Your task to perform on an android device: clear history in the chrome app Image 0: 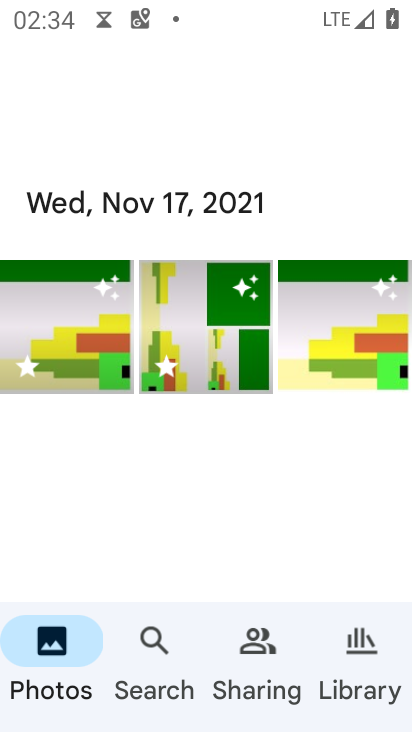
Step 0: drag from (301, 576) to (305, 409)
Your task to perform on an android device: clear history in the chrome app Image 1: 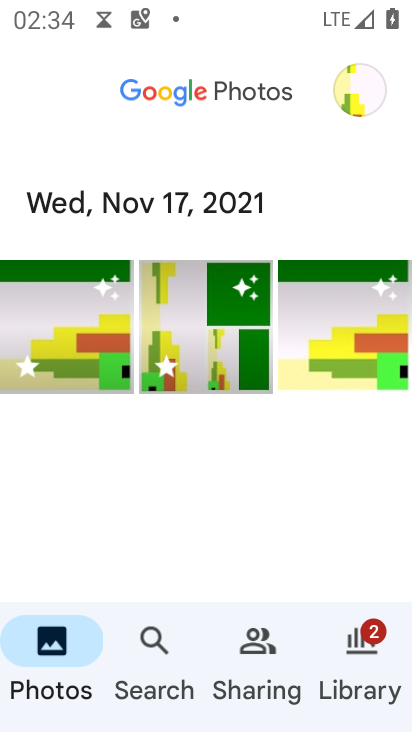
Step 1: press home button
Your task to perform on an android device: clear history in the chrome app Image 2: 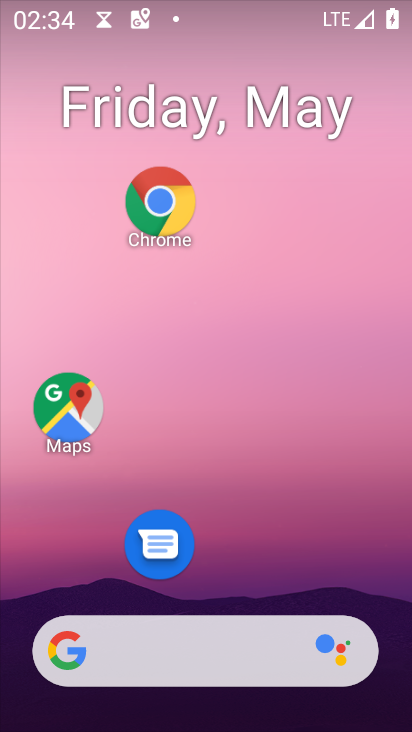
Step 2: click (311, 536)
Your task to perform on an android device: clear history in the chrome app Image 3: 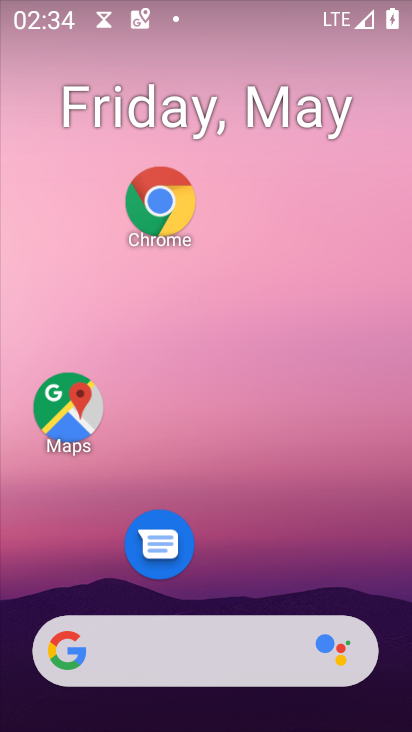
Step 3: click (168, 218)
Your task to perform on an android device: clear history in the chrome app Image 4: 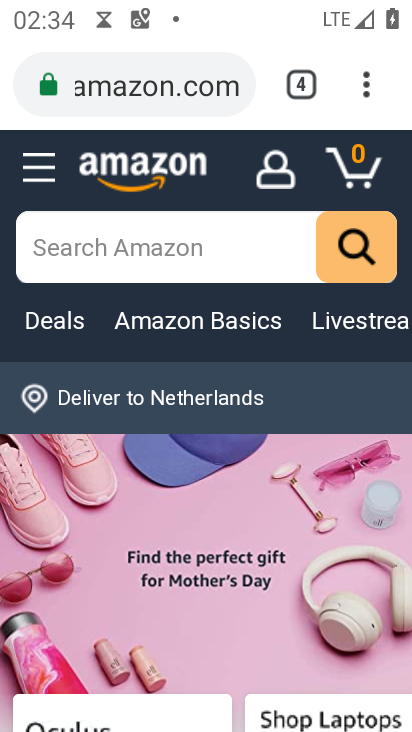
Step 4: click (372, 89)
Your task to perform on an android device: clear history in the chrome app Image 5: 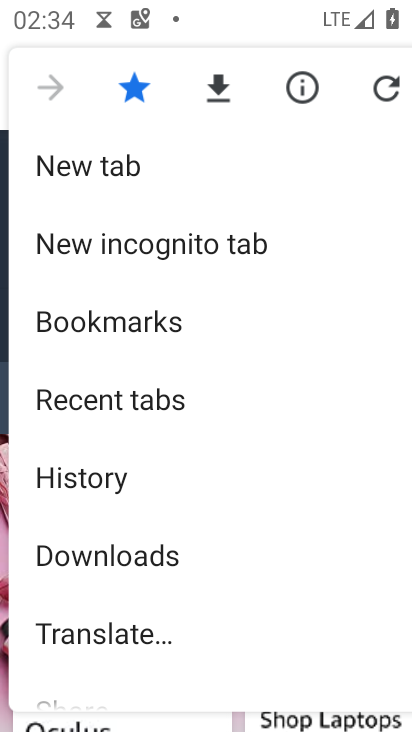
Step 5: click (155, 482)
Your task to perform on an android device: clear history in the chrome app Image 6: 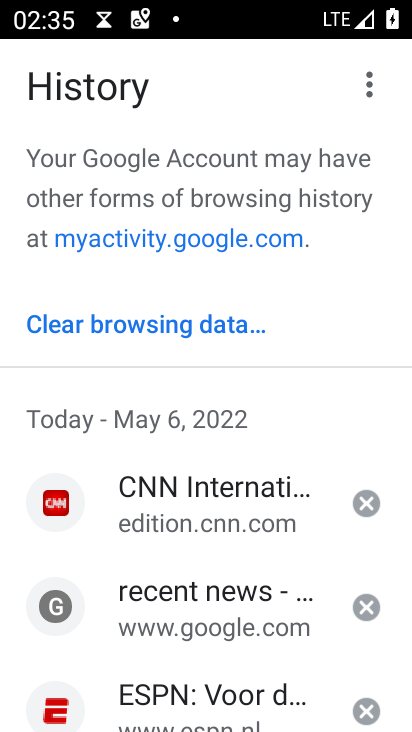
Step 6: click (200, 333)
Your task to perform on an android device: clear history in the chrome app Image 7: 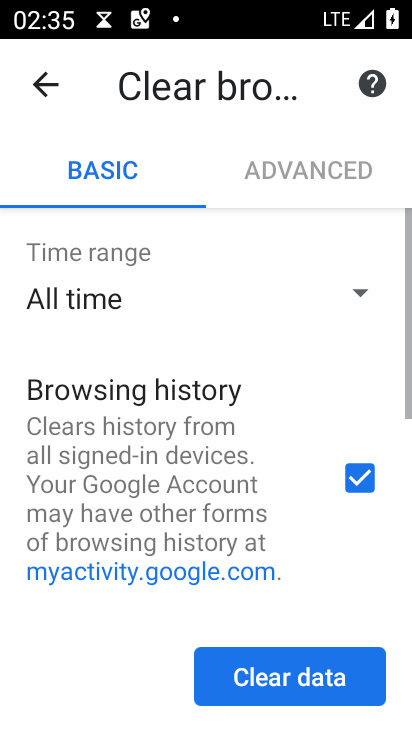
Step 7: click (299, 678)
Your task to perform on an android device: clear history in the chrome app Image 8: 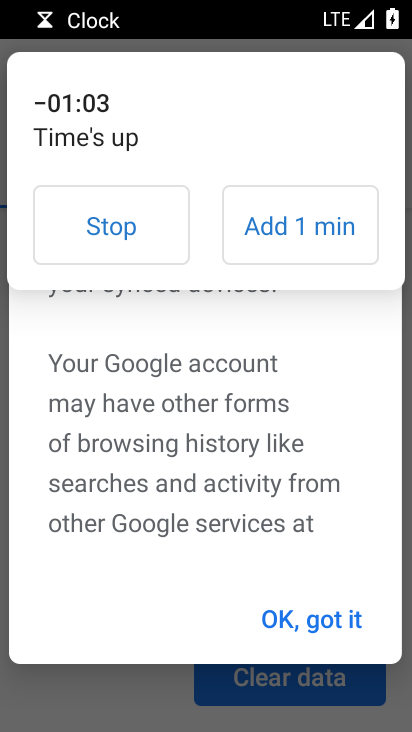
Step 8: click (313, 623)
Your task to perform on an android device: clear history in the chrome app Image 9: 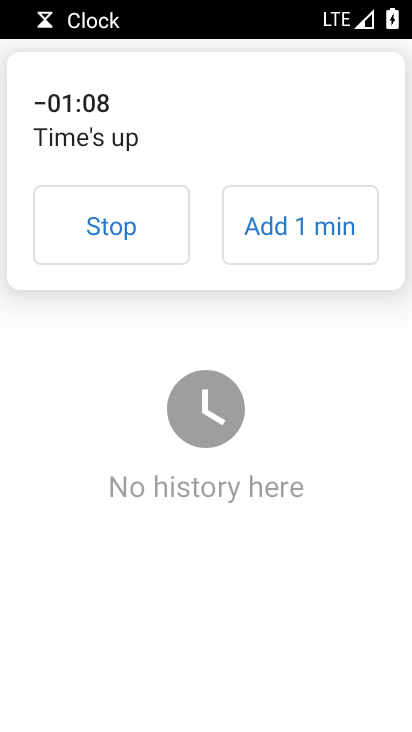
Step 9: click (127, 241)
Your task to perform on an android device: clear history in the chrome app Image 10: 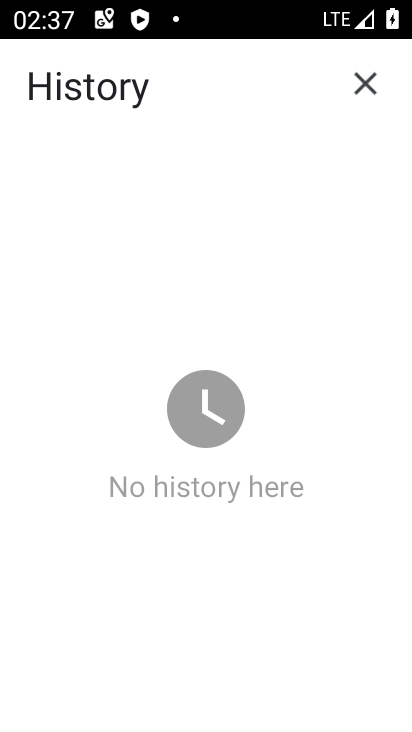
Step 10: task complete